Your task to perform on an android device: Open privacy settings Image 0: 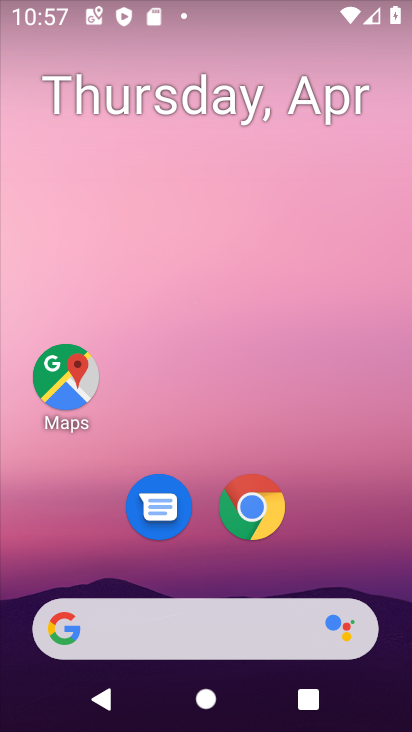
Step 0: click (269, 519)
Your task to perform on an android device: Open privacy settings Image 1: 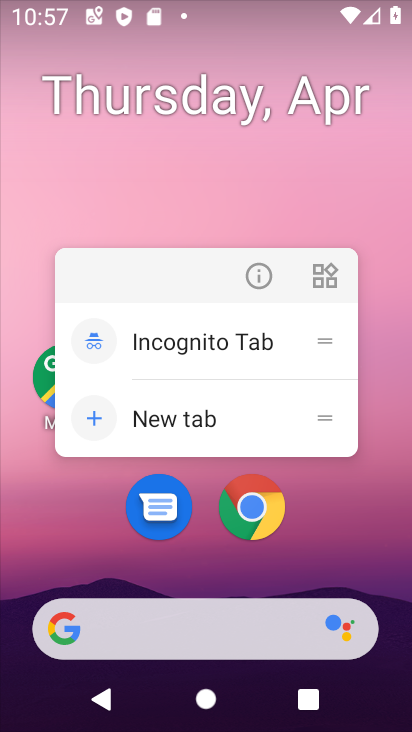
Step 1: click (268, 513)
Your task to perform on an android device: Open privacy settings Image 2: 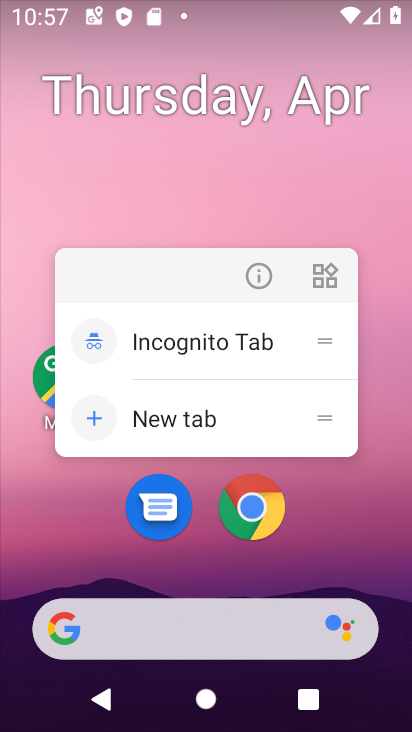
Step 2: click (267, 506)
Your task to perform on an android device: Open privacy settings Image 3: 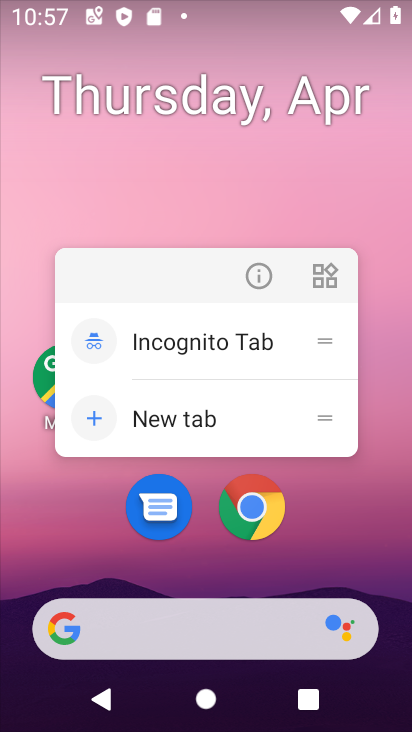
Step 3: click (269, 495)
Your task to perform on an android device: Open privacy settings Image 4: 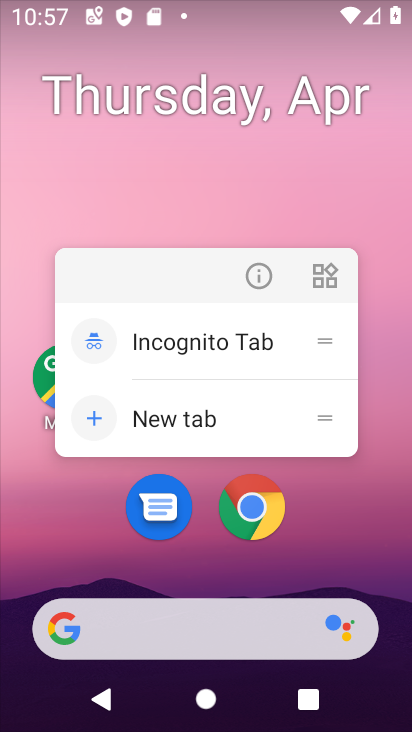
Step 4: click (260, 512)
Your task to perform on an android device: Open privacy settings Image 5: 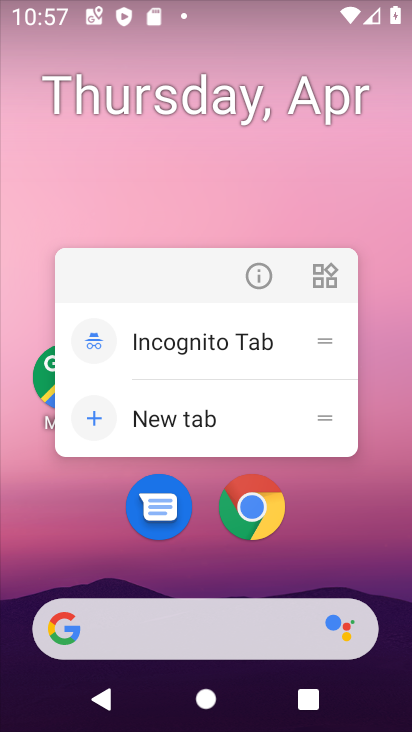
Step 5: click (258, 507)
Your task to perform on an android device: Open privacy settings Image 6: 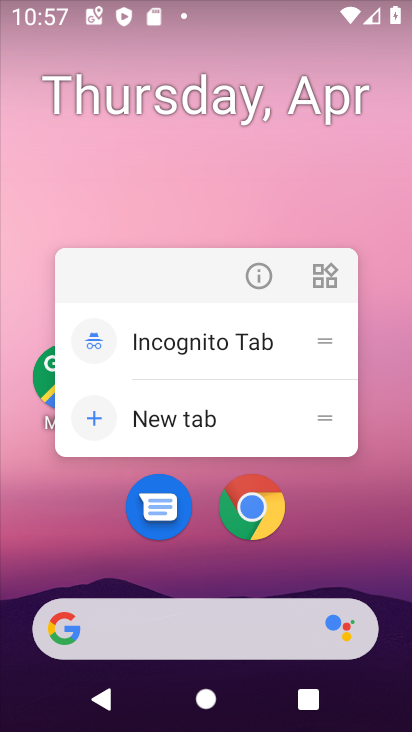
Step 6: click (271, 508)
Your task to perform on an android device: Open privacy settings Image 7: 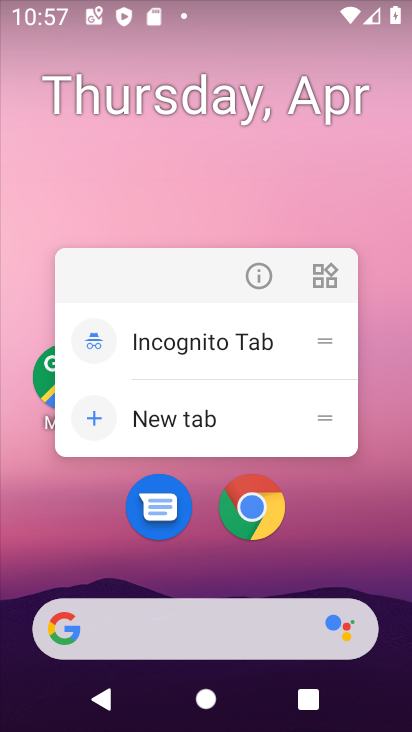
Step 7: click (271, 508)
Your task to perform on an android device: Open privacy settings Image 8: 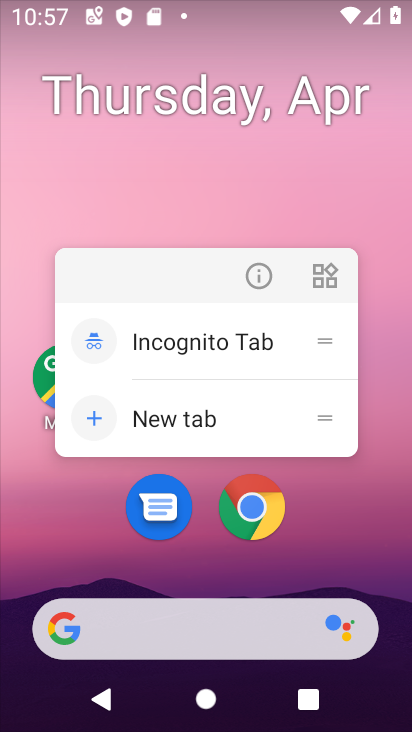
Step 8: drag from (286, 546) to (389, 26)
Your task to perform on an android device: Open privacy settings Image 9: 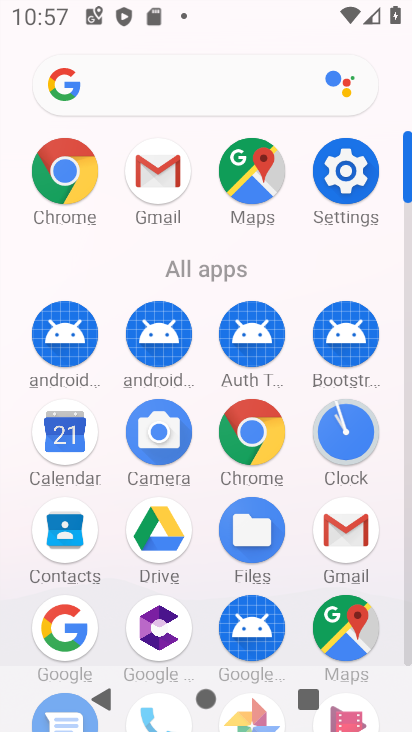
Step 9: drag from (153, 604) to (230, 345)
Your task to perform on an android device: Open privacy settings Image 10: 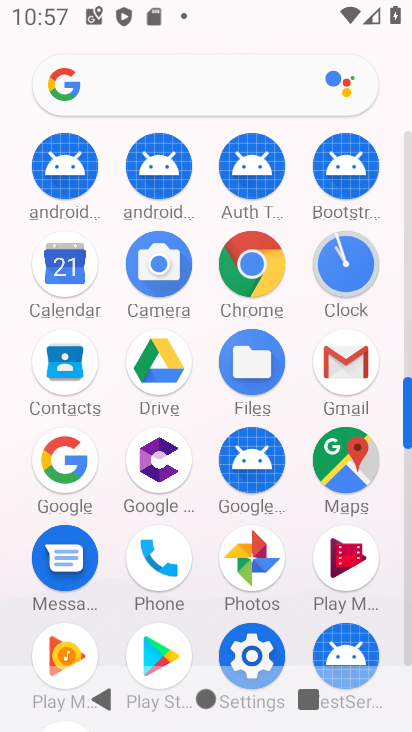
Step 10: click (258, 271)
Your task to perform on an android device: Open privacy settings Image 11: 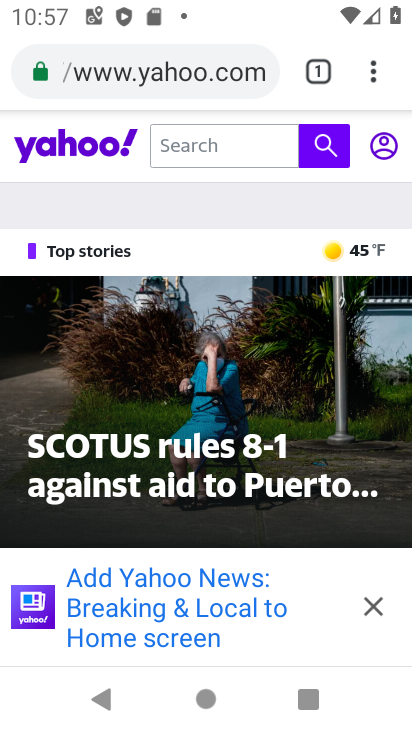
Step 11: click (383, 85)
Your task to perform on an android device: Open privacy settings Image 12: 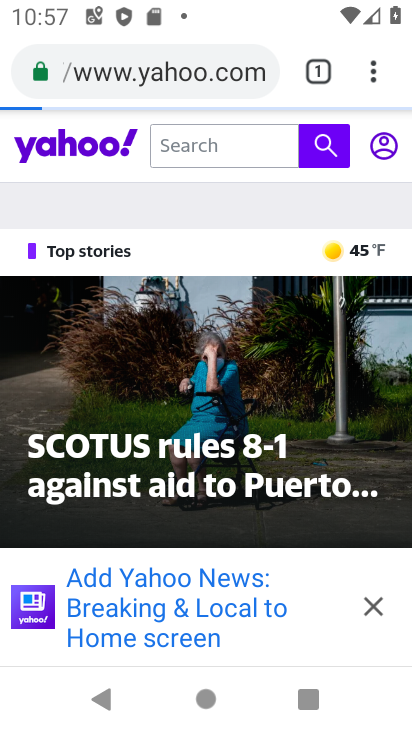
Step 12: drag from (383, 85) to (174, 518)
Your task to perform on an android device: Open privacy settings Image 13: 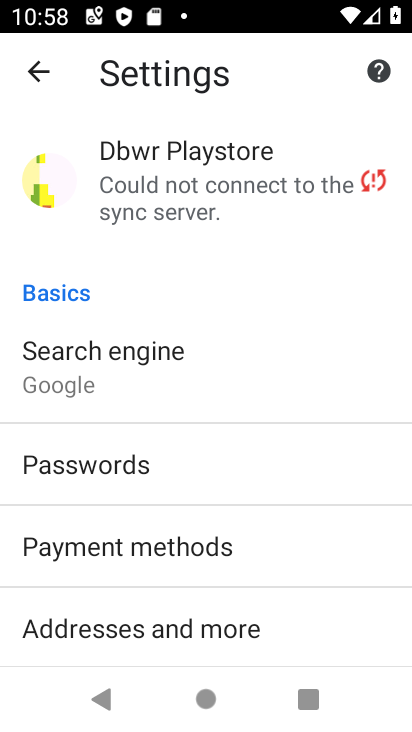
Step 13: drag from (146, 606) to (251, 236)
Your task to perform on an android device: Open privacy settings Image 14: 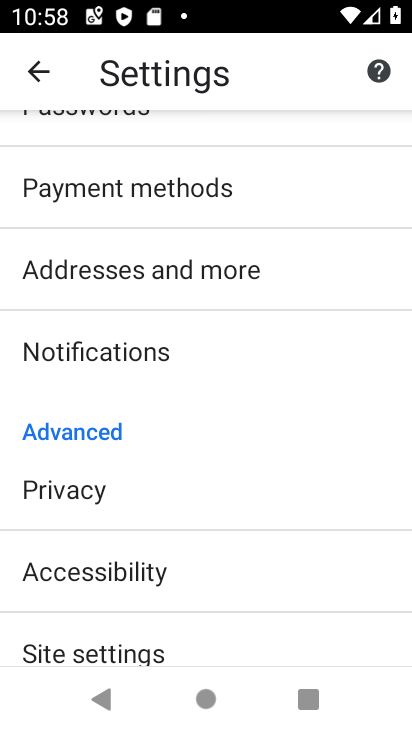
Step 14: click (122, 494)
Your task to perform on an android device: Open privacy settings Image 15: 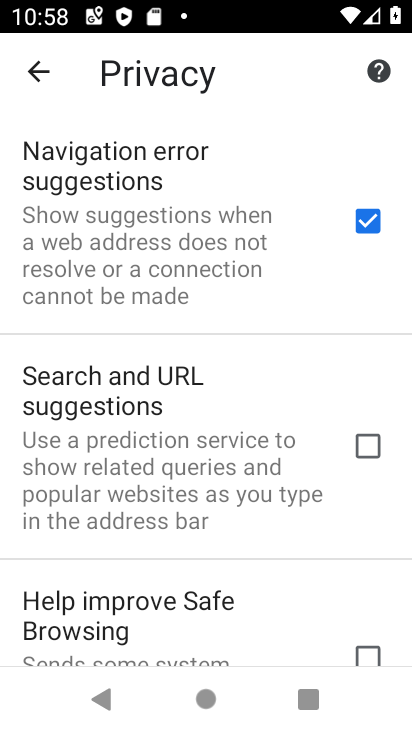
Step 15: task complete